Your task to perform on an android device: Clear the cart on ebay. Search for "razer blade" on ebay, select the first entry, add it to the cart, then select checkout. Image 0: 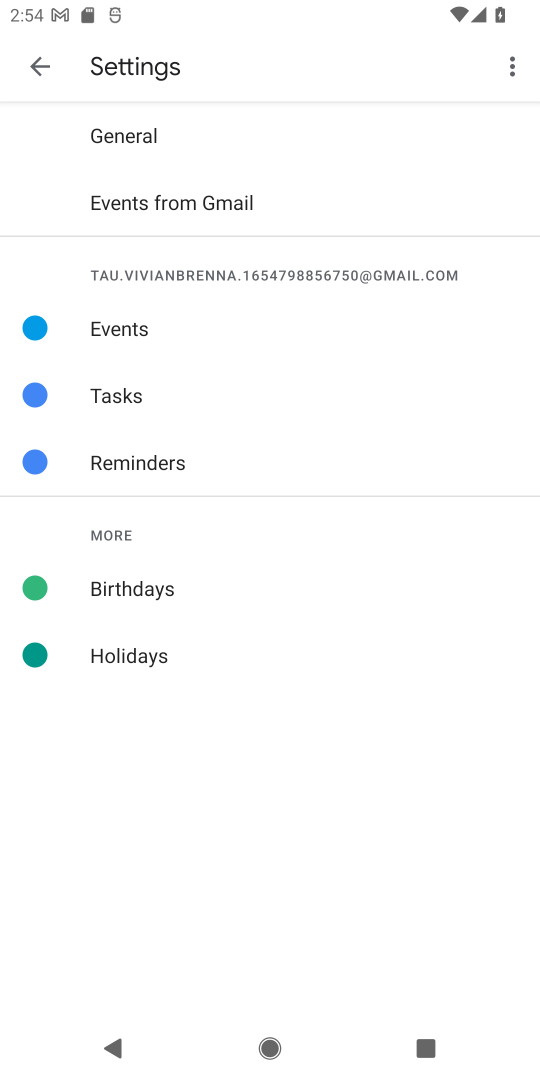
Step 0: press home button
Your task to perform on an android device: Clear the cart on ebay. Search for "razer blade" on ebay, select the first entry, add it to the cart, then select checkout. Image 1: 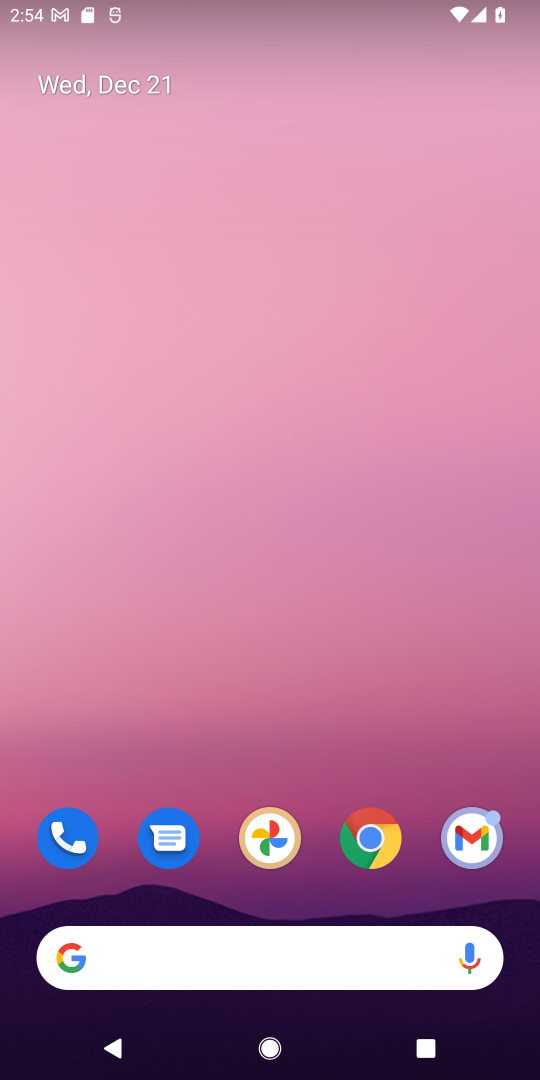
Step 1: click (387, 862)
Your task to perform on an android device: Clear the cart on ebay. Search for "razer blade" on ebay, select the first entry, add it to the cart, then select checkout. Image 2: 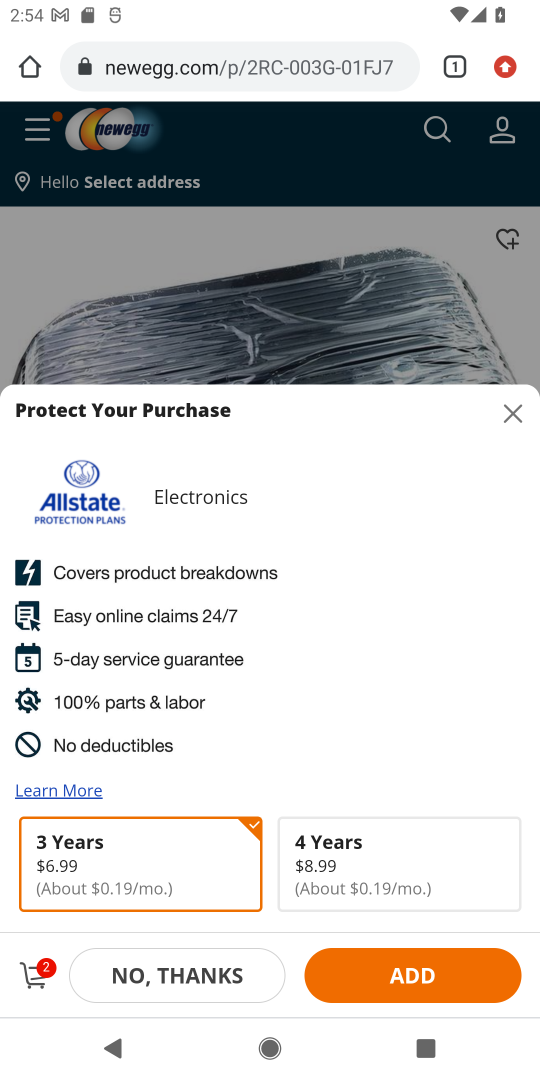
Step 2: click (269, 77)
Your task to perform on an android device: Clear the cart on ebay. Search for "razer blade" on ebay, select the first entry, add it to the cart, then select checkout. Image 3: 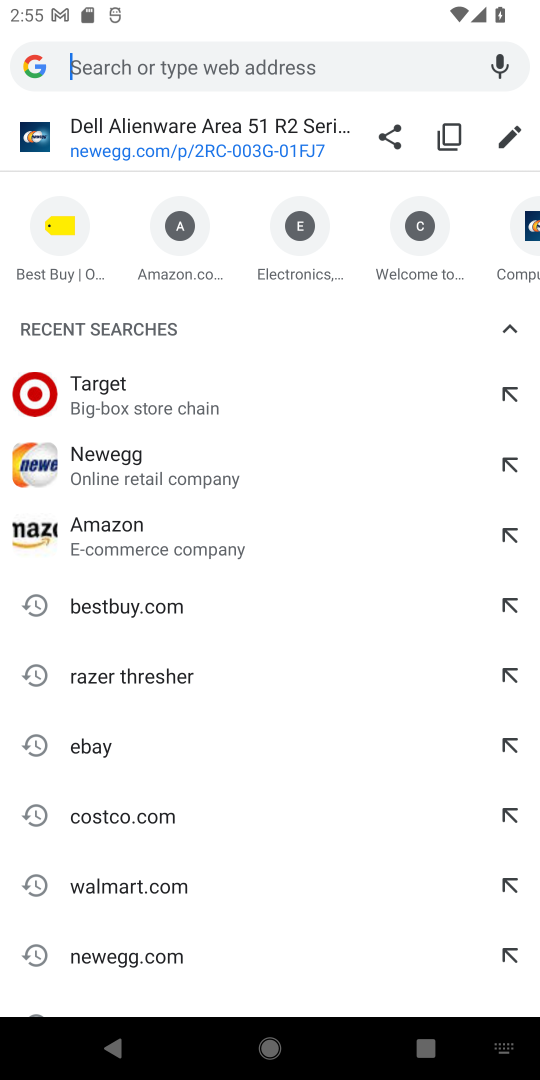
Step 3: type "ebay.com"
Your task to perform on an android device: Clear the cart on ebay. Search for "razer blade" on ebay, select the first entry, add it to the cart, then select checkout. Image 4: 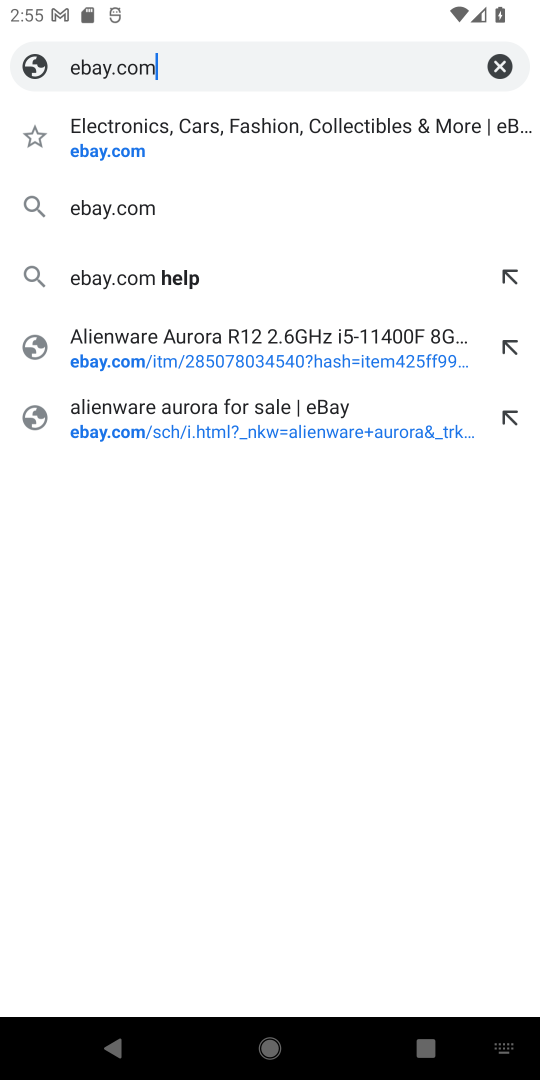
Step 4: click (175, 140)
Your task to perform on an android device: Clear the cart on ebay. Search for "razer blade" on ebay, select the first entry, add it to the cart, then select checkout. Image 5: 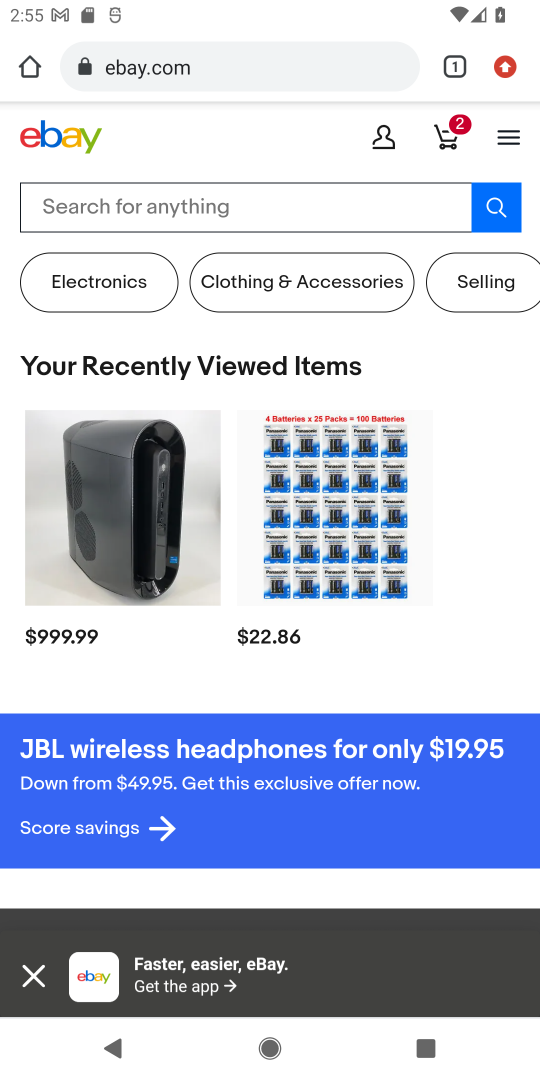
Step 5: click (291, 219)
Your task to perform on an android device: Clear the cart on ebay. Search for "razer blade" on ebay, select the first entry, add it to the cart, then select checkout. Image 6: 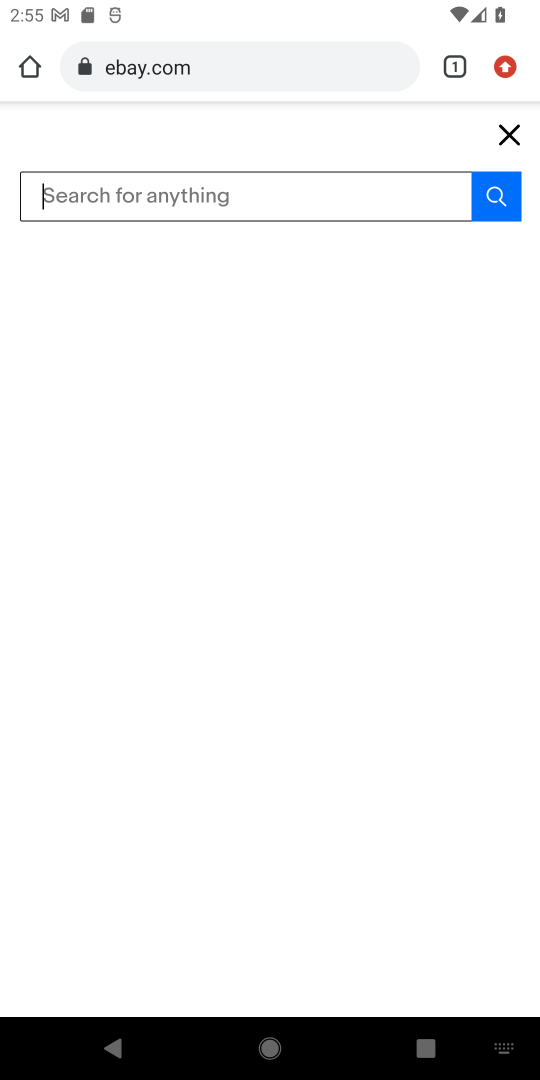
Step 6: type "razer blade"
Your task to perform on an android device: Clear the cart on ebay. Search for "razer blade" on ebay, select the first entry, add it to the cart, then select checkout. Image 7: 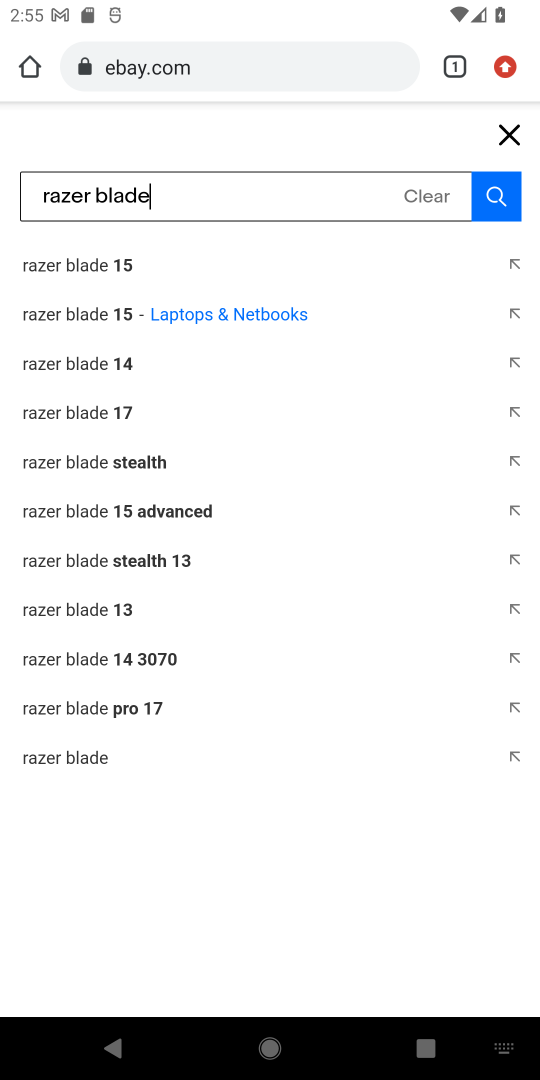
Step 7: click (491, 197)
Your task to perform on an android device: Clear the cart on ebay. Search for "razer blade" on ebay, select the first entry, add it to the cart, then select checkout. Image 8: 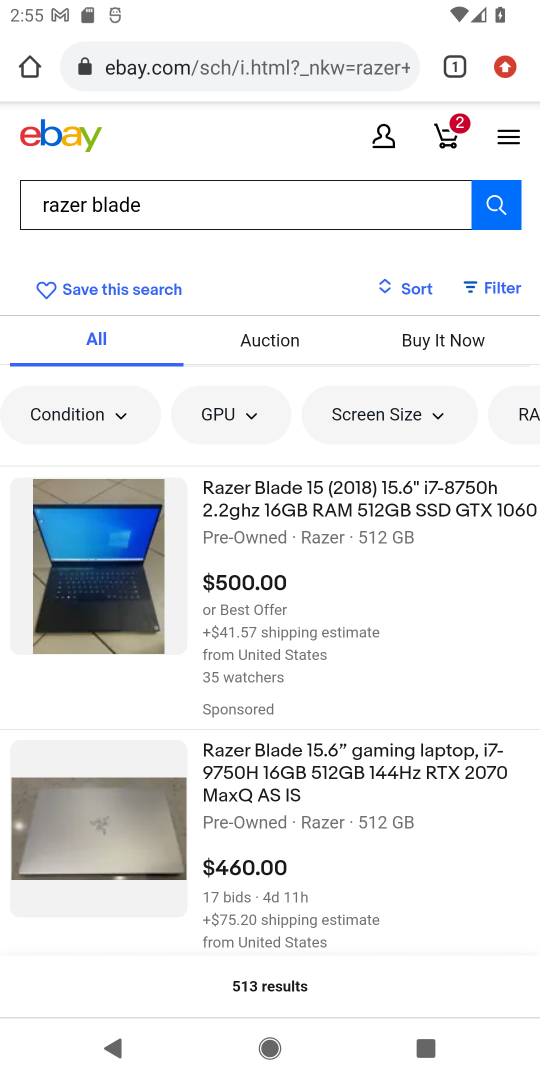
Step 8: click (265, 486)
Your task to perform on an android device: Clear the cart on ebay. Search for "razer blade" on ebay, select the first entry, add it to the cart, then select checkout. Image 9: 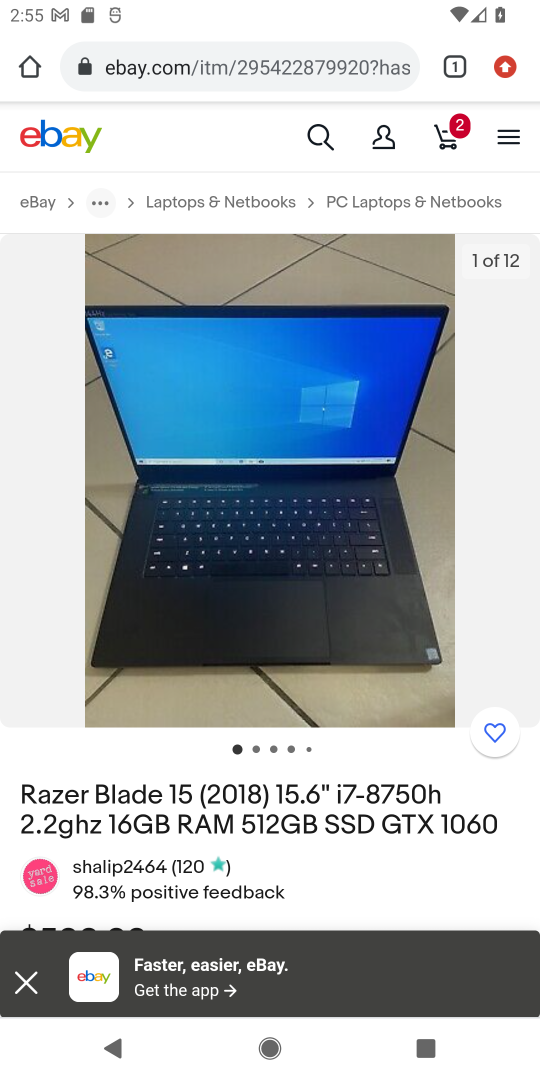
Step 9: click (6, 971)
Your task to perform on an android device: Clear the cart on ebay. Search for "razer blade" on ebay, select the first entry, add it to the cart, then select checkout. Image 10: 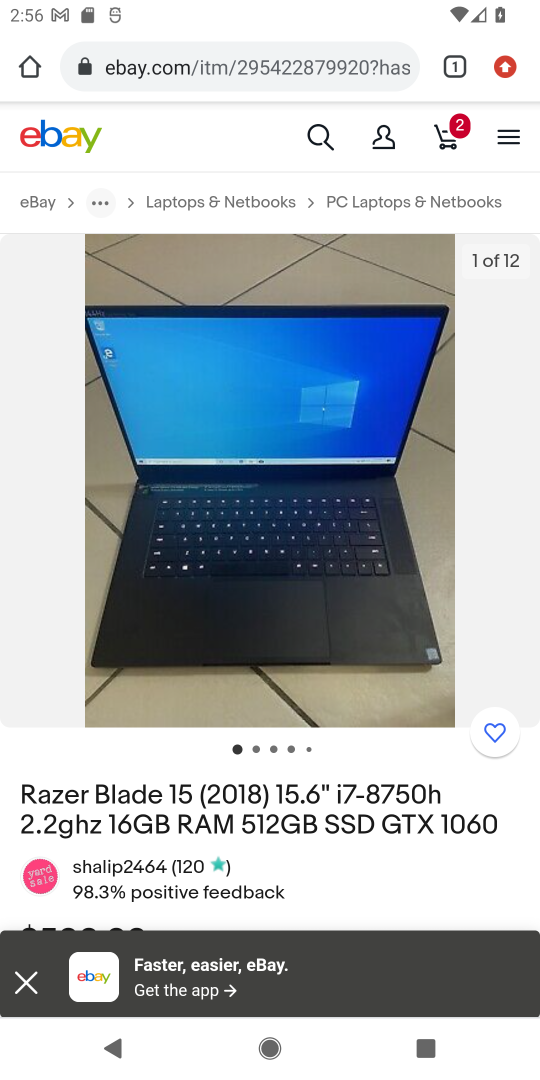
Step 10: click (34, 989)
Your task to perform on an android device: Clear the cart on ebay. Search for "razer blade" on ebay, select the first entry, add it to the cart, then select checkout. Image 11: 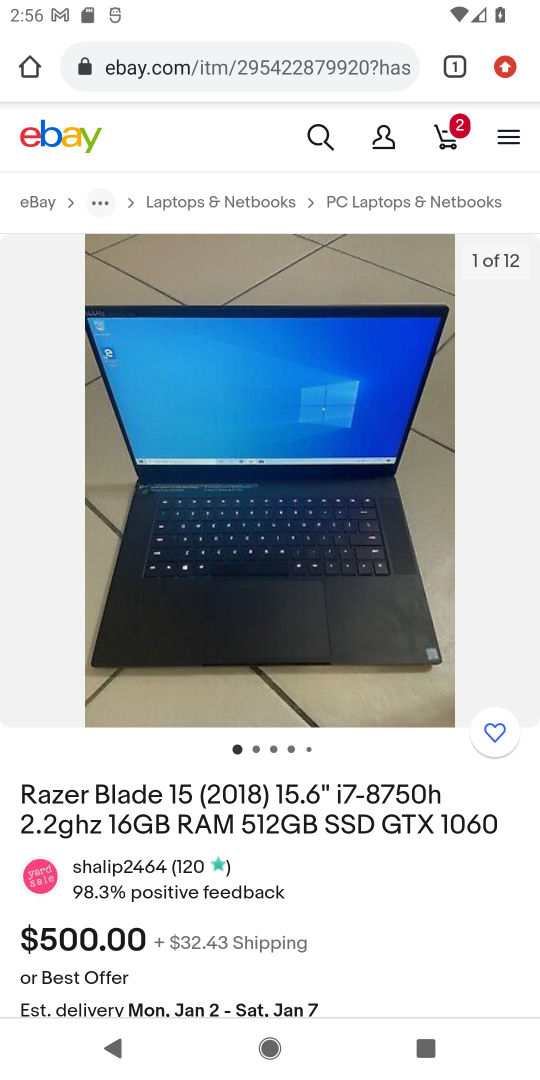
Step 11: drag from (382, 916) to (357, 417)
Your task to perform on an android device: Clear the cart on ebay. Search for "razer blade" on ebay, select the first entry, add it to the cart, then select checkout. Image 12: 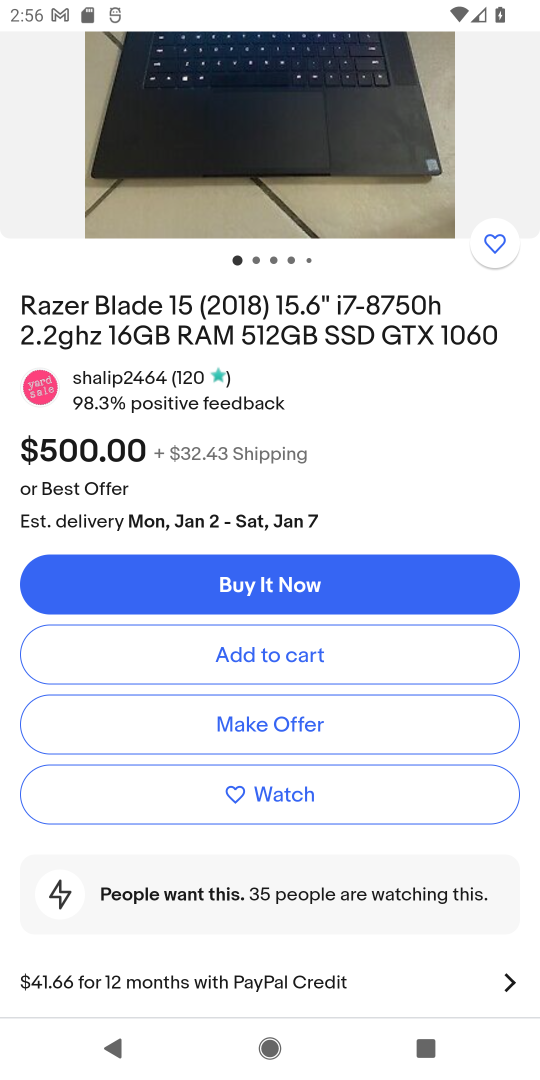
Step 12: click (373, 659)
Your task to perform on an android device: Clear the cart on ebay. Search for "razer blade" on ebay, select the first entry, add it to the cart, then select checkout. Image 13: 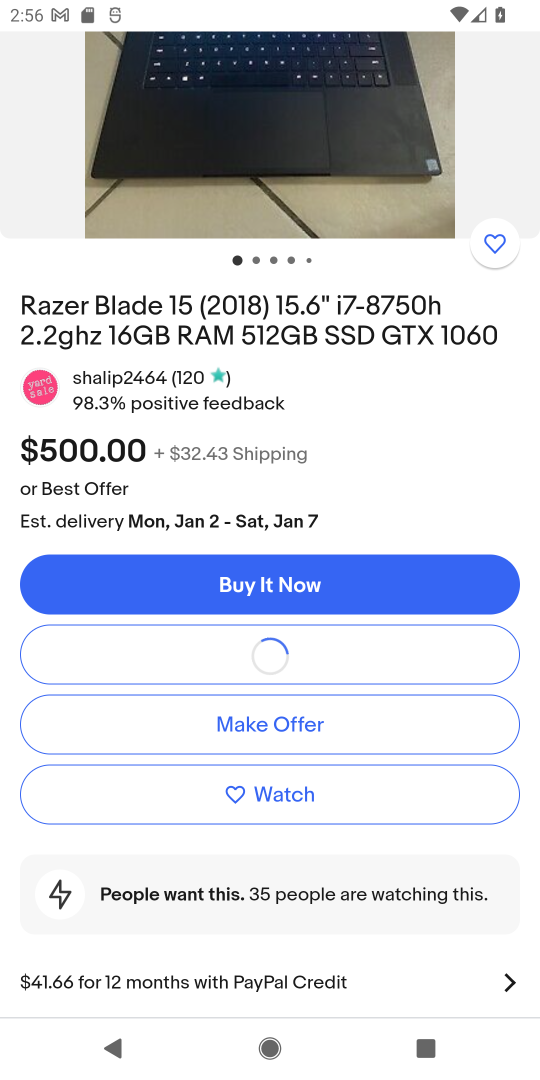
Step 13: task complete